Your task to perform on an android device: Search for hotels in Denver Image 0: 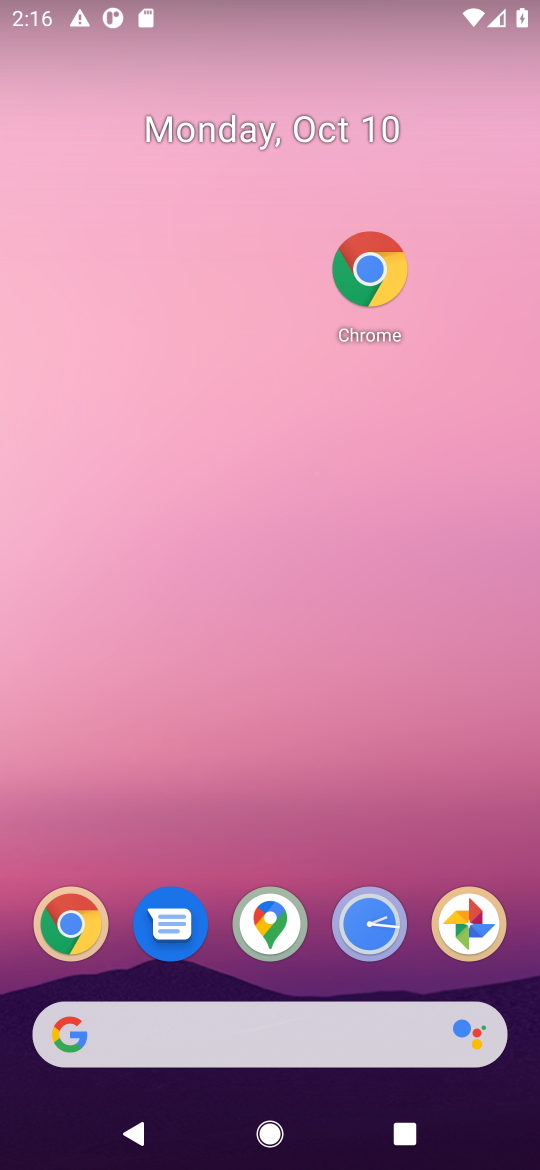
Step 0: drag from (310, 869) to (319, 4)
Your task to perform on an android device: Search for hotels in Denver Image 1: 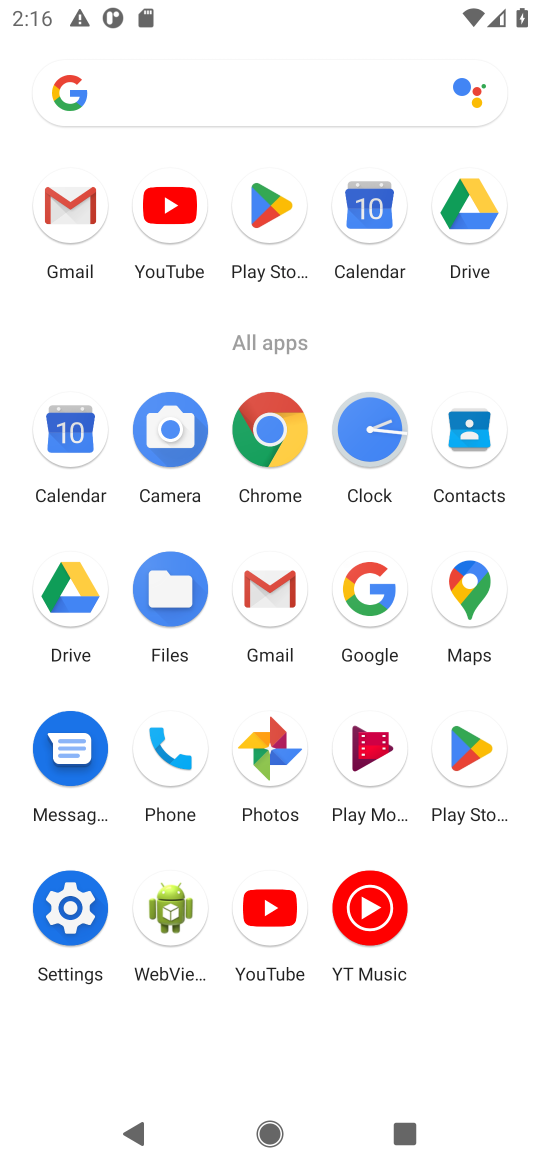
Step 1: click (278, 420)
Your task to perform on an android device: Search for hotels in Denver Image 2: 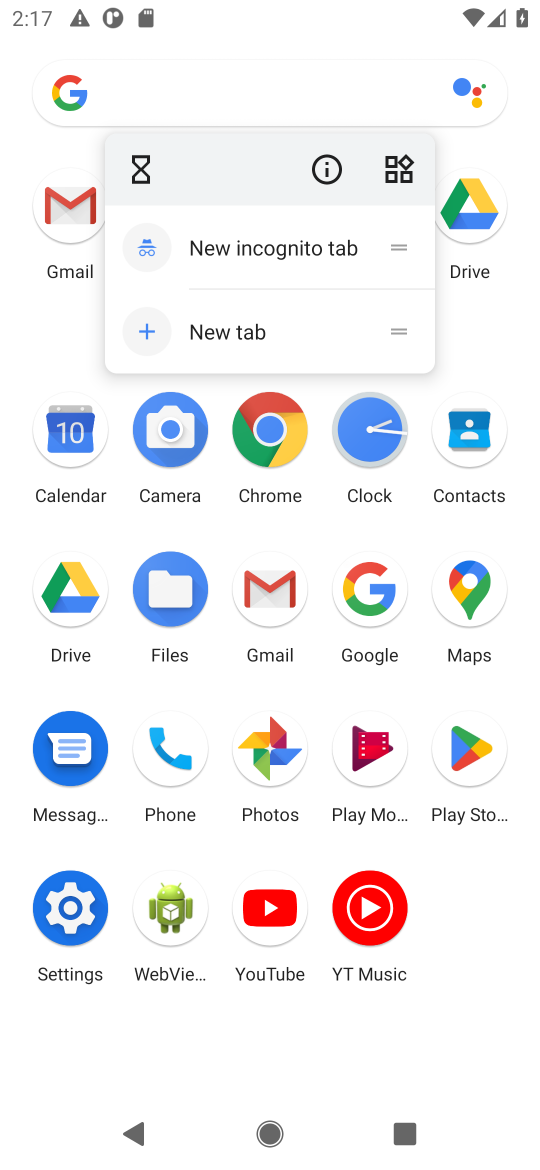
Step 2: click (276, 435)
Your task to perform on an android device: Search for hotels in Denver Image 3: 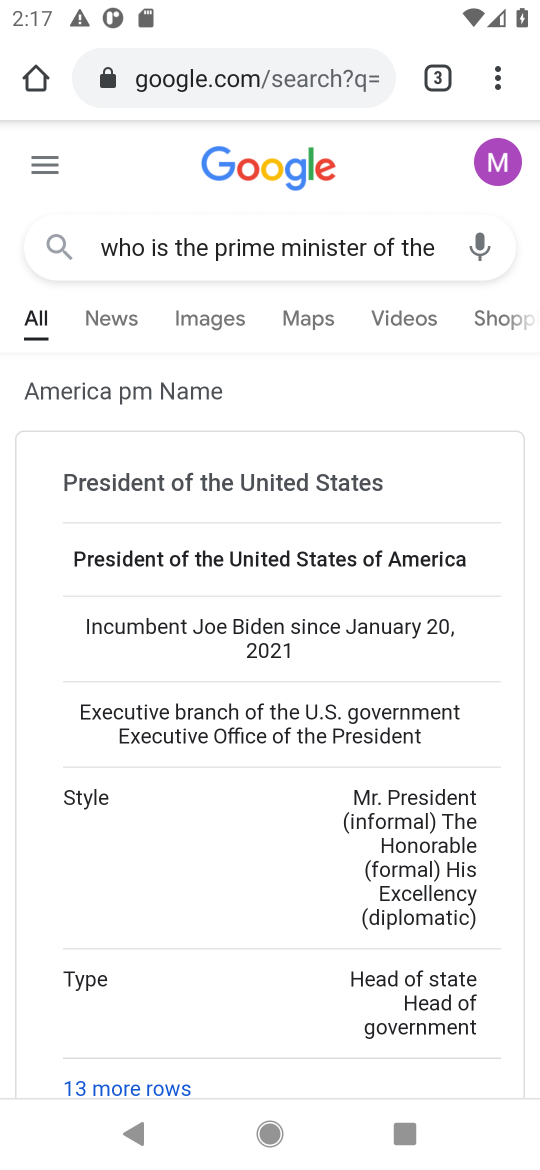
Step 3: task complete